Your task to perform on an android device: toggle notification dots Image 0: 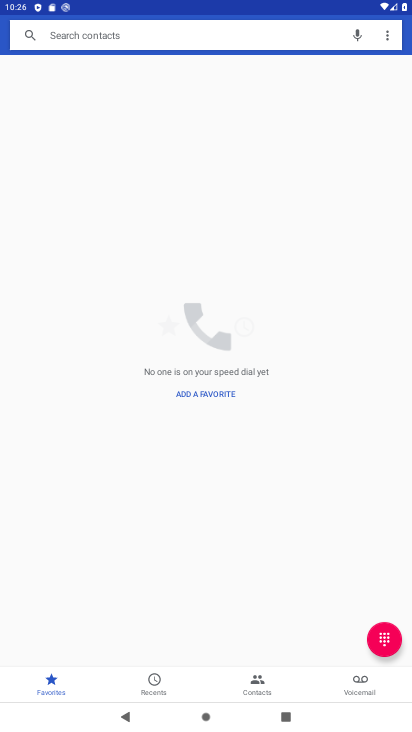
Step 0: press home button
Your task to perform on an android device: toggle notification dots Image 1: 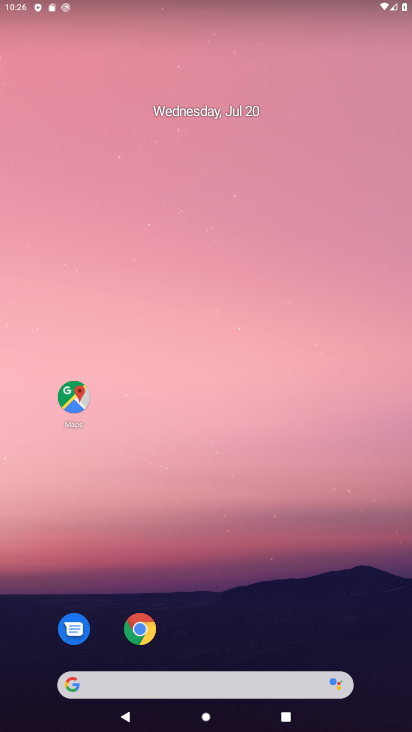
Step 1: drag from (246, 465) to (280, 3)
Your task to perform on an android device: toggle notification dots Image 2: 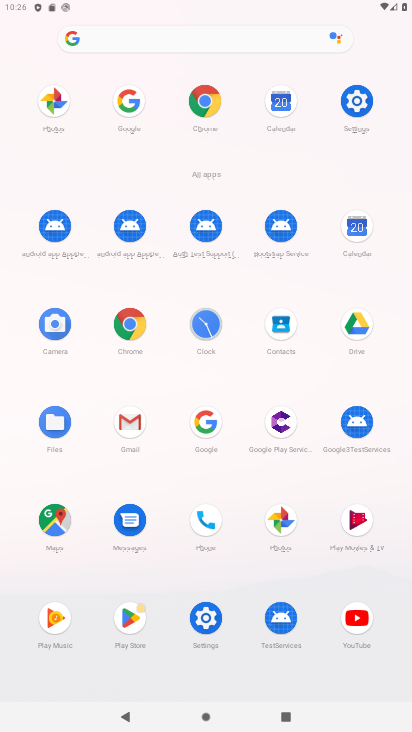
Step 2: click (366, 96)
Your task to perform on an android device: toggle notification dots Image 3: 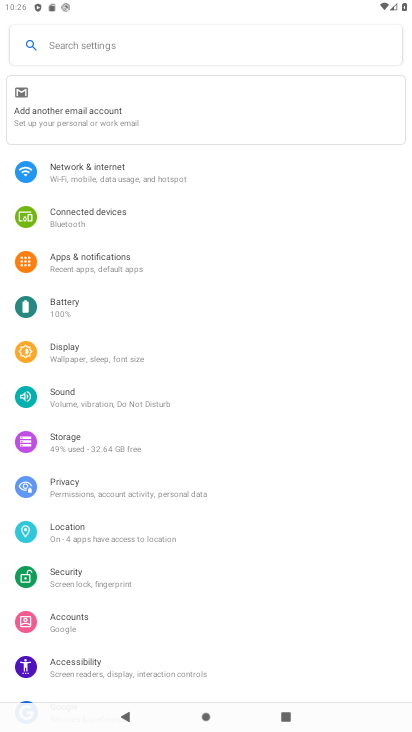
Step 3: click (85, 264)
Your task to perform on an android device: toggle notification dots Image 4: 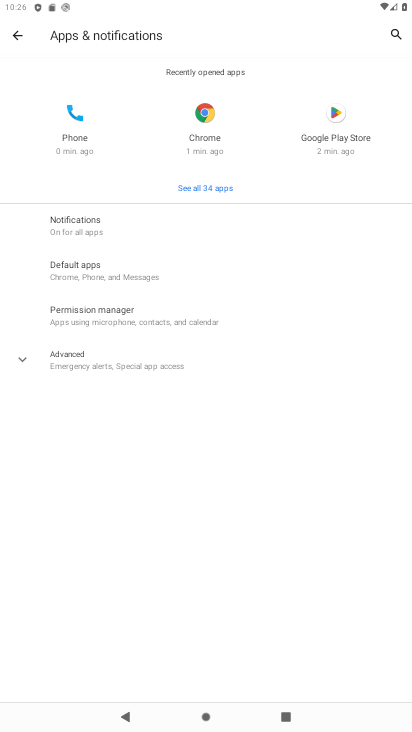
Step 4: click (64, 224)
Your task to perform on an android device: toggle notification dots Image 5: 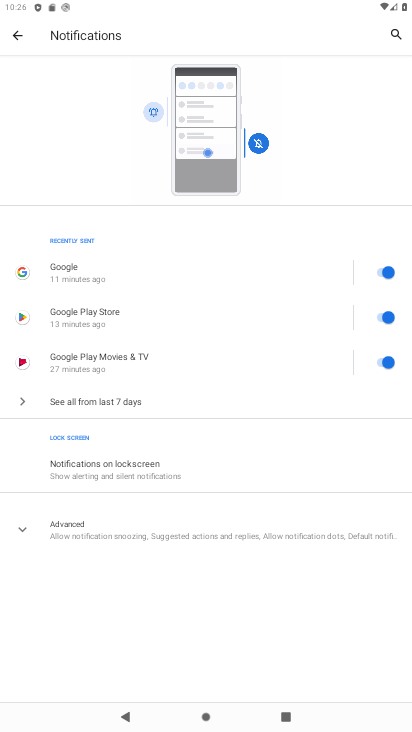
Step 5: click (95, 543)
Your task to perform on an android device: toggle notification dots Image 6: 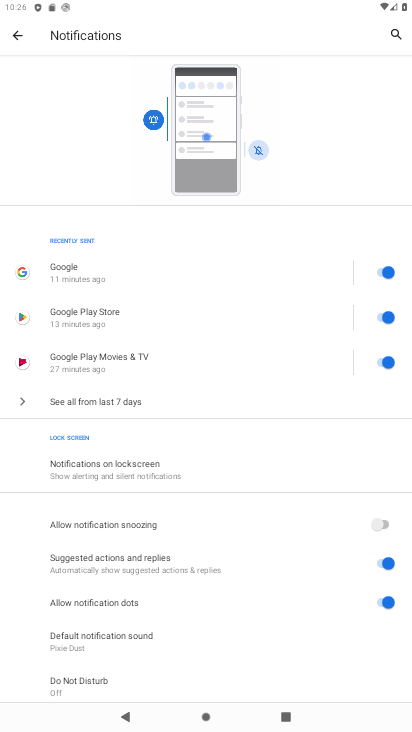
Step 6: click (397, 604)
Your task to perform on an android device: toggle notification dots Image 7: 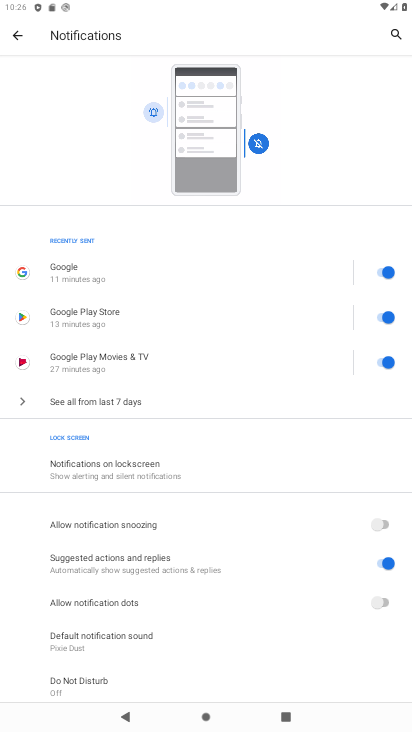
Step 7: task complete